Your task to perform on an android device: Search for Mexican restaurants on Maps Image 0: 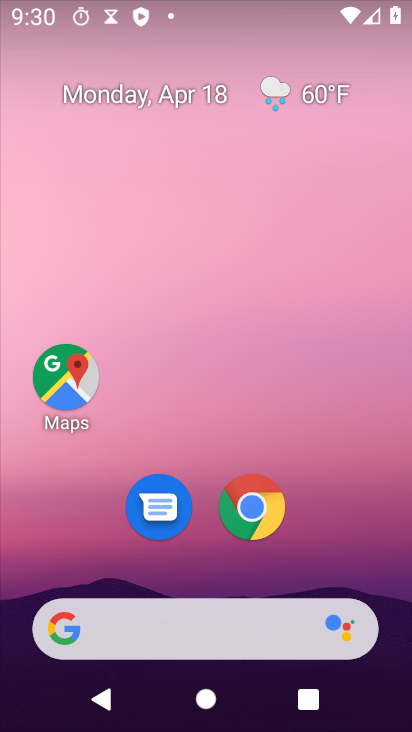
Step 0: drag from (323, 539) to (406, 115)
Your task to perform on an android device: Search for Mexican restaurants on Maps Image 1: 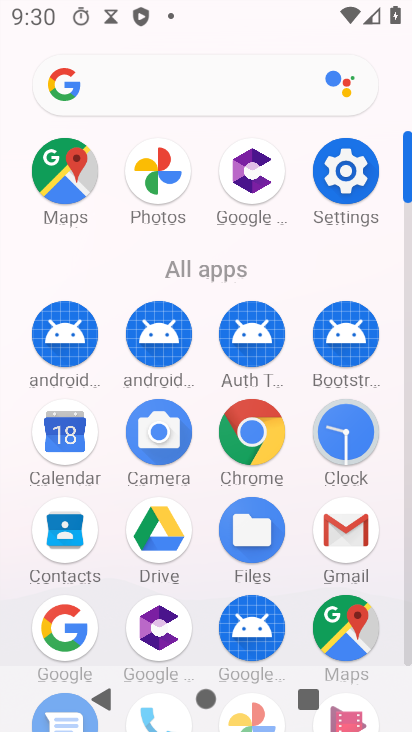
Step 1: click (47, 171)
Your task to perform on an android device: Search for Mexican restaurants on Maps Image 2: 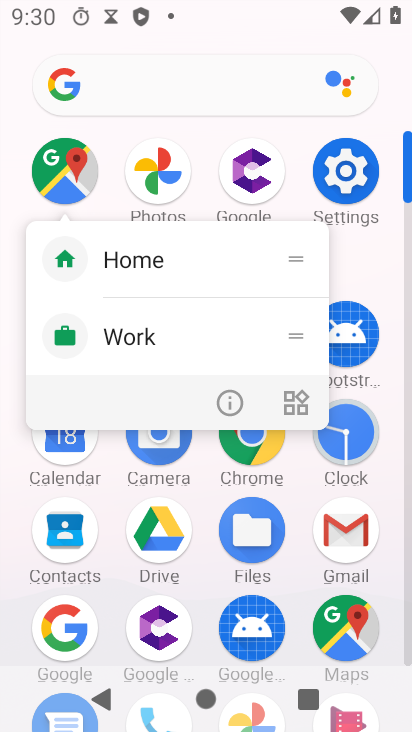
Step 2: click (47, 171)
Your task to perform on an android device: Search for Mexican restaurants on Maps Image 3: 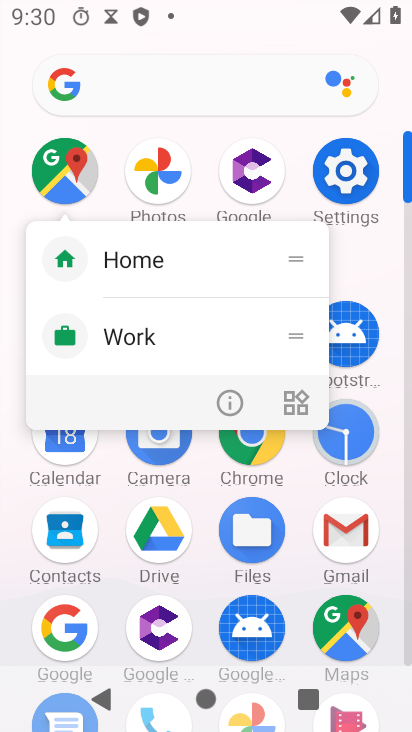
Step 3: click (40, 185)
Your task to perform on an android device: Search for Mexican restaurants on Maps Image 4: 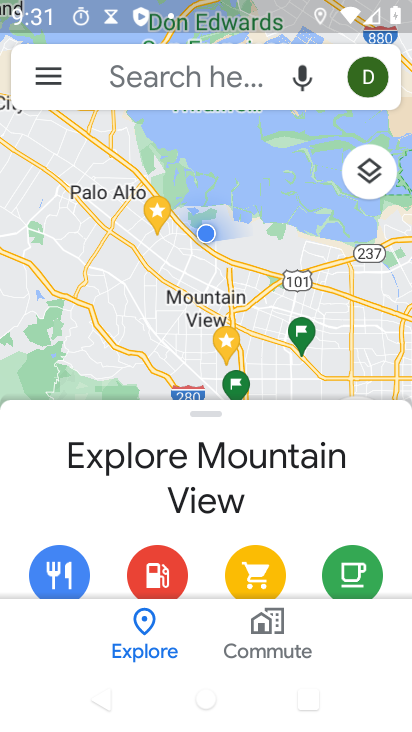
Step 4: click (161, 89)
Your task to perform on an android device: Search for Mexican restaurants on Maps Image 5: 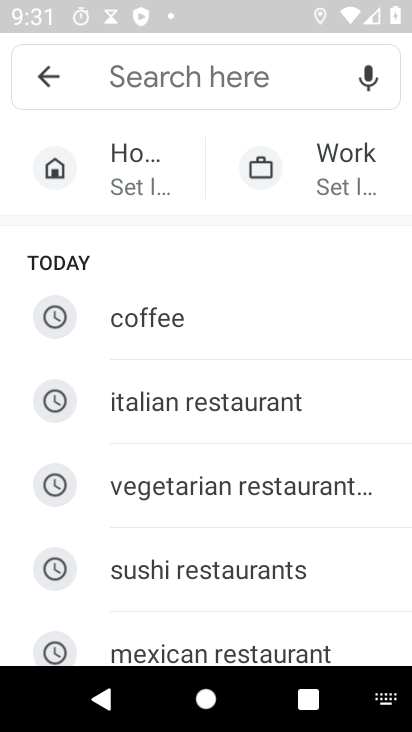
Step 5: type "mexican restaurants"
Your task to perform on an android device: Search for Mexican restaurants on Maps Image 6: 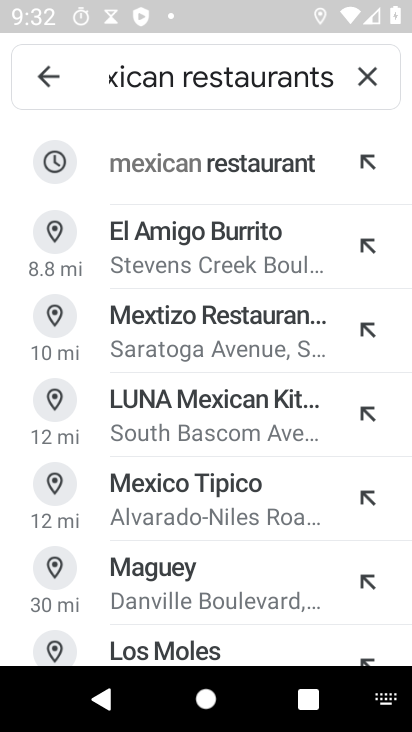
Step 6: click (190, 161)
Your task to perform on an android device: Search for Mexican restaurants on Maps Image 7: 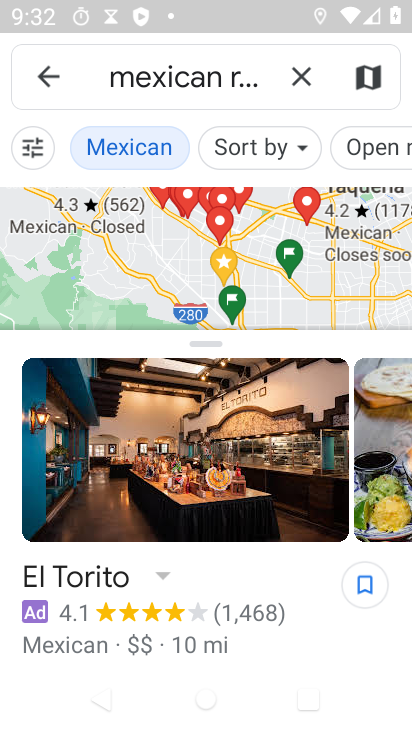
Step 7: task complete